Your task to perform on an android device: find which apps use the phone's location Image 0: 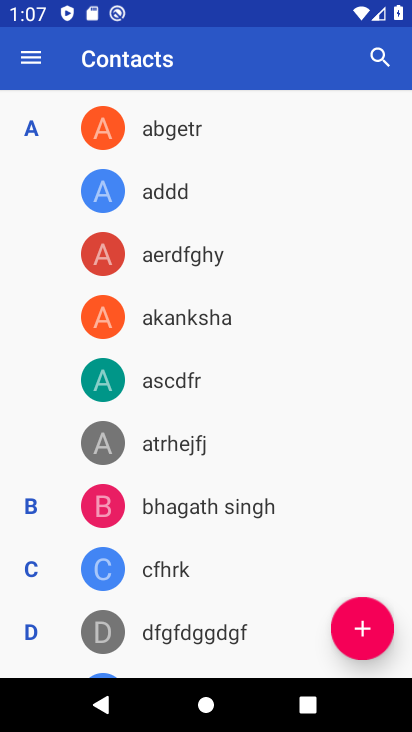
Step 0: press home button
Your task to perform on an android device: find which apps use the phone's location Image 1: 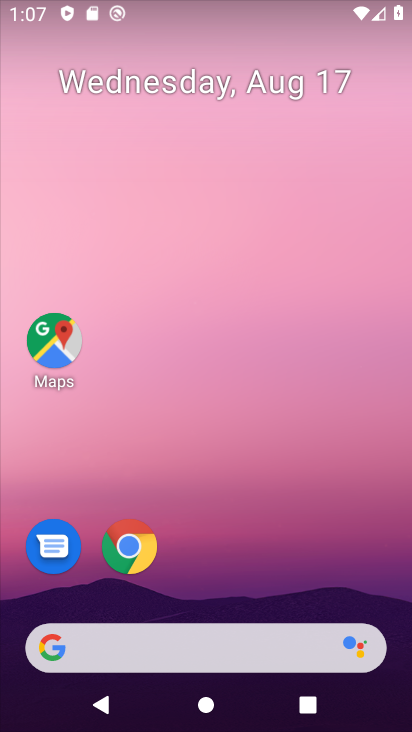
Step 1: drag from (228, 465) to (228, 124)
Your task to perform on an android device: find which apps use the phone's location Image 2: 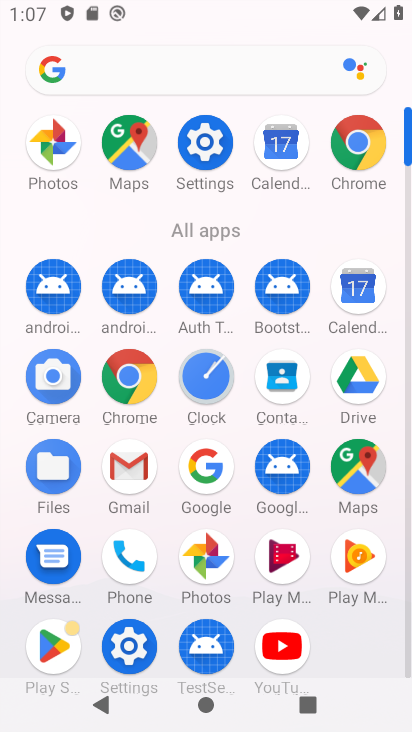
Step 2: click (204, 165)
Your task to perform on an android device: find which apps use the phone's location Image 3: 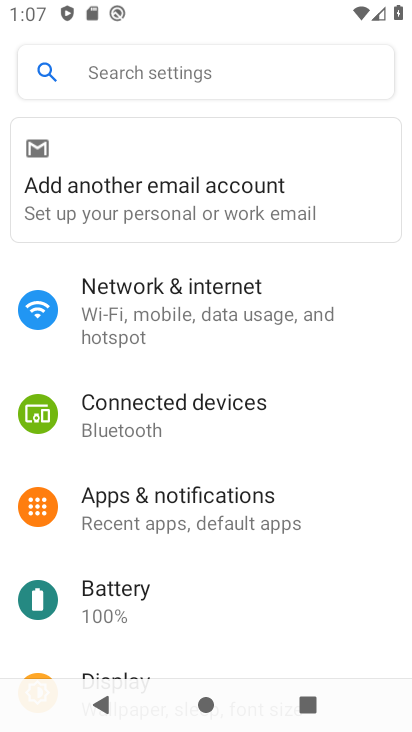
Step 3: drag from (142, 592) to (146, 337)
Your task to perform on an android device: find which apps use the phone's location Image 4: 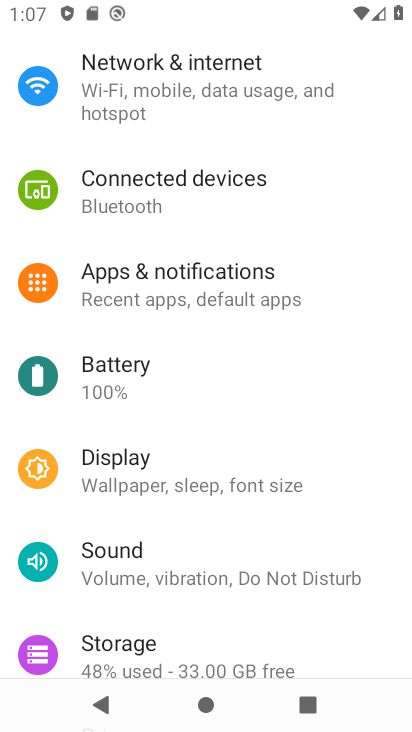
Step 4: drag from (177, 496) to (160, 257)
Your task to perform on an android device: find which apps use the phone's location Image 5: 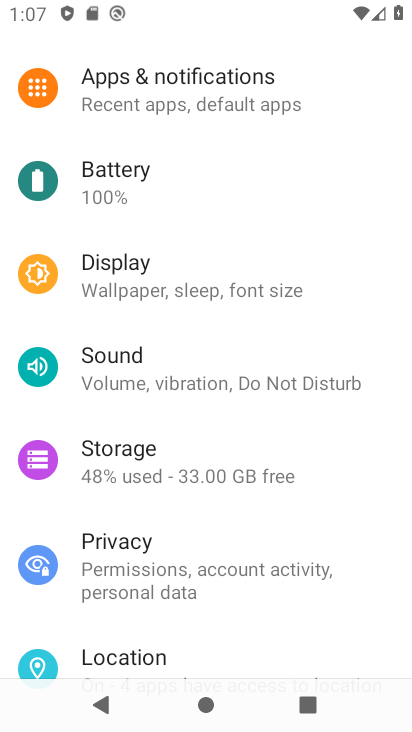
Step 5: drag from (164, 635) to (173, 352)
Your task to perform on an android device: find which apps use the phone's location Image 6: 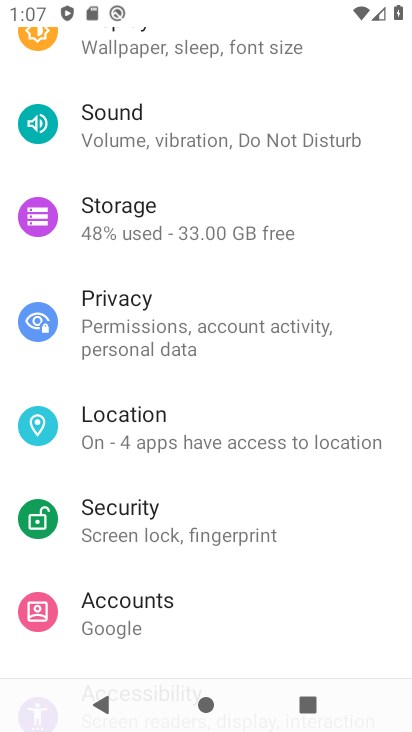
Step 6: click (162, 420)
Your task to perform on an android device: find which apps use the phone's location Image 7: 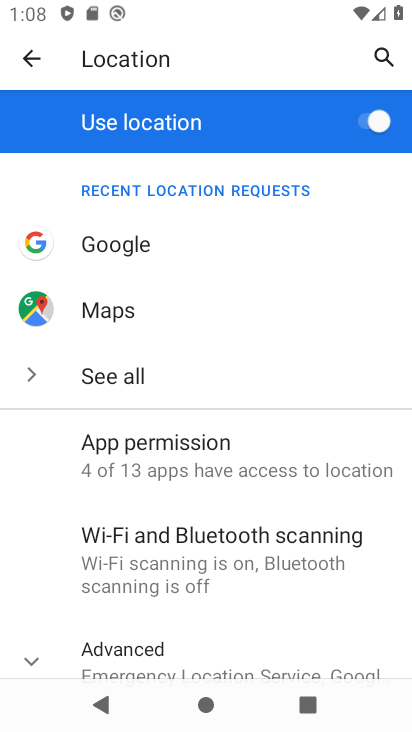
Step 7: click (139, 450)
Your task to perform on an android device: find which apps use the phone's location Image 8: 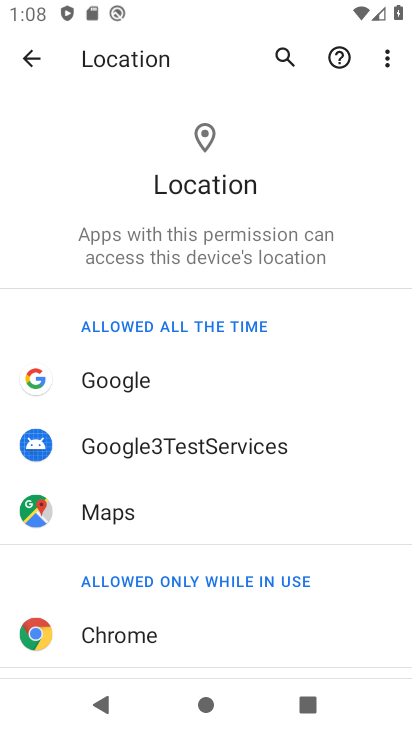
Step 8: task complete